Your task to perform on an android device: change notification settings in the gmail app Image 0: 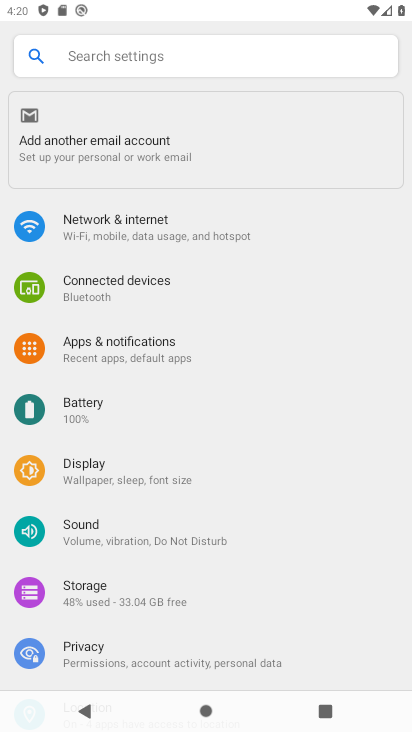
Step 0: press home button
Your task to perform on an android device: change notification settings in the gmail app Image 1: 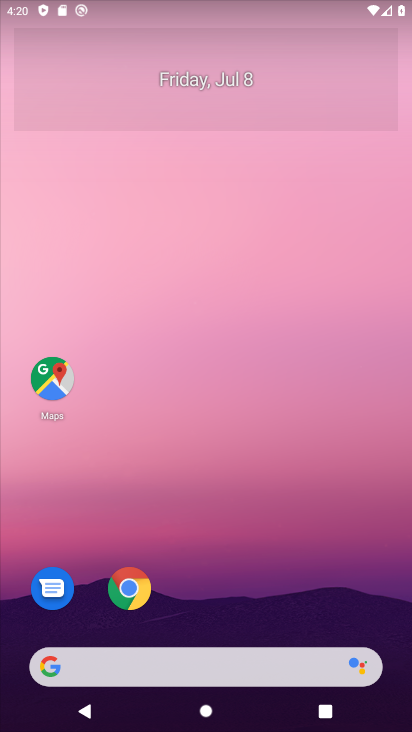
Step 1: drag from (241, 573) to (237, 257)
Your task to perform on an android device: change notification settings in the gmail app Image 2: 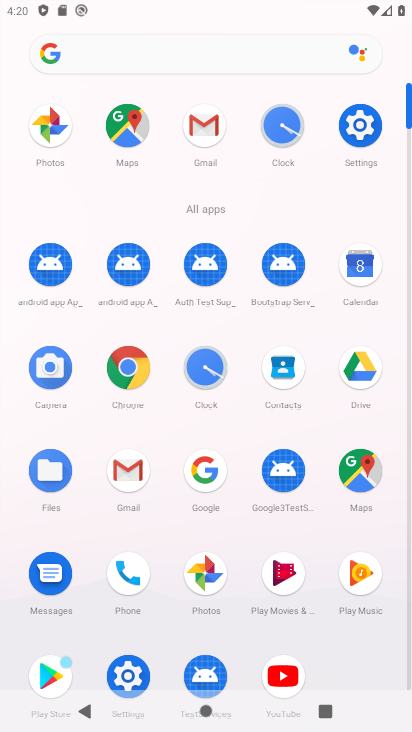
Step 2: click (202, 130)
Your task to perform on an android device: change notification settings in the gmail app Image 3: 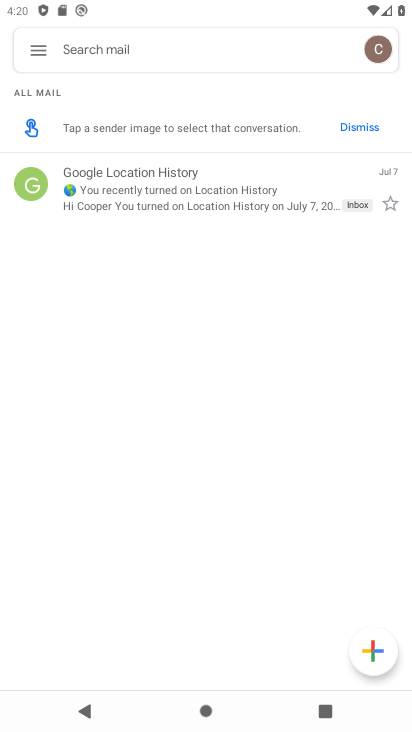
Step 3: click (34, 50)
Your task to perform on an android device: change notification settings in the gmail app Image 4: 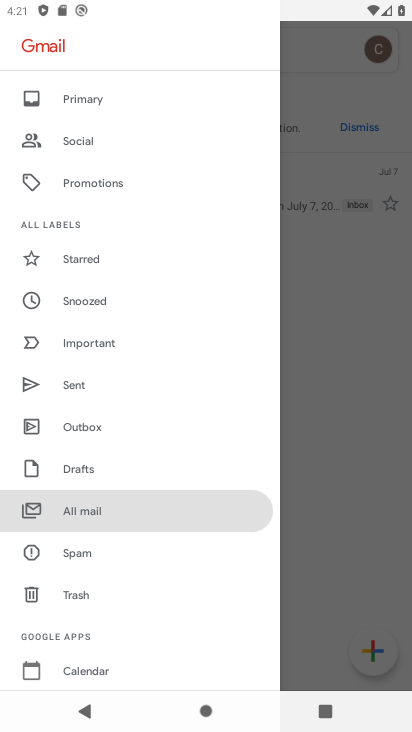
Step 4: drag from (176, 335) to (189, 6)
Your task to perform on an android device: change notification settings in the gmail app Image 5: 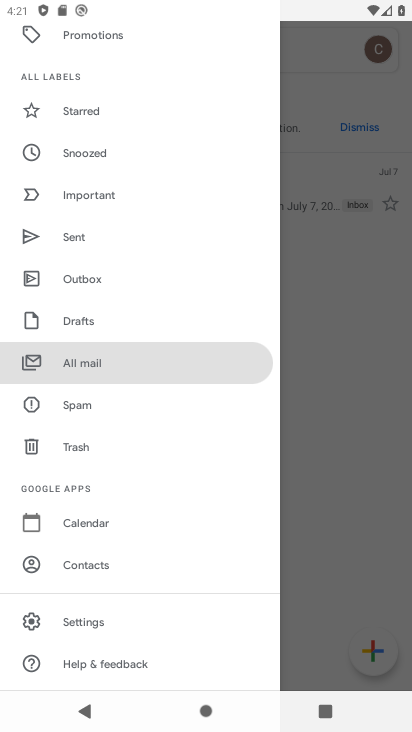
Step 5: click (106, 619)
Your task to perform on an android device: change notification settings in the gmail app Image 6: 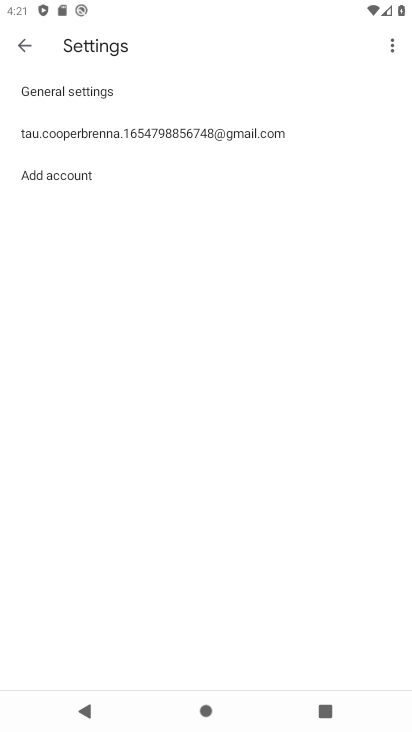
Step 6: click (74, 82)
Your task to perform on an android device: change notification settings in the gmail app Image 7: 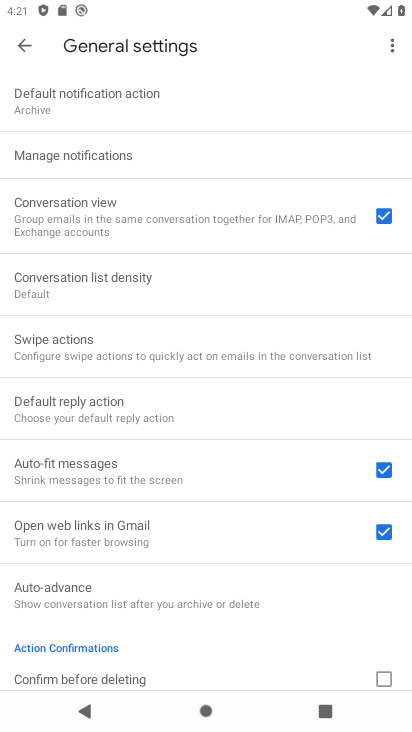
Step 7: drag from (188, 351) to (237, 175)
Your task to perform on an android device: change notification settings in the gmail app Image 8: 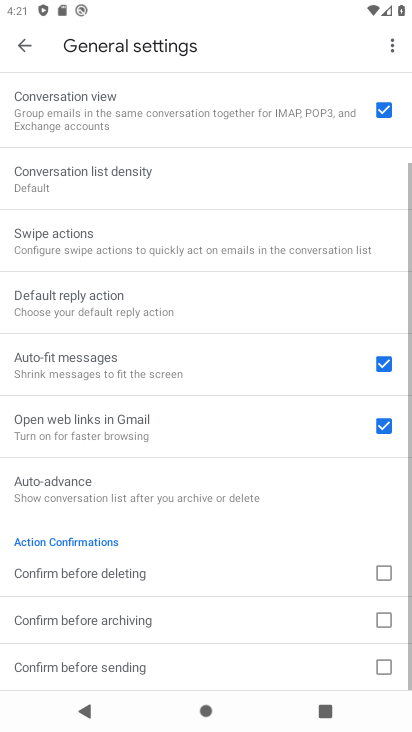
Step 8: drag from (203, 480) to (218, 320)
Your task to perform on an android device: change notification settings in the gmail app Image 9: 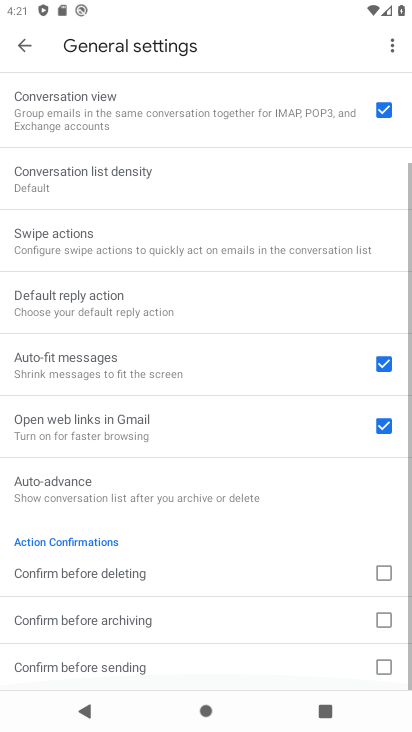
Step 9: drag from (241, 263) to (257, 630)
Your task to perform on an android device: change notification settings in the gmail app Image 10: 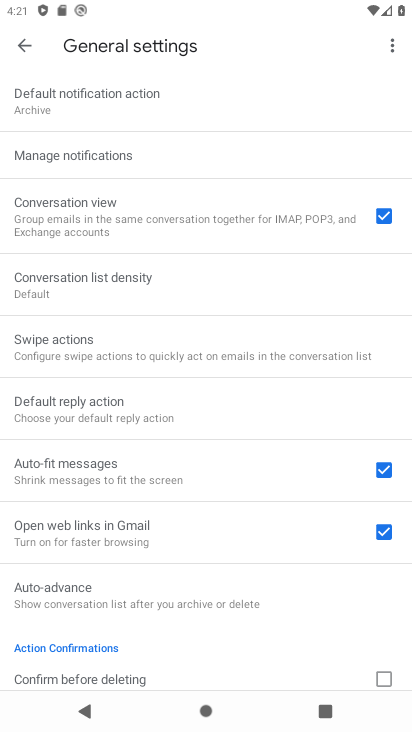
Step 10: click (151, 151)
Your task to perform on an android device: change notification settings in the gmail app Image 11: 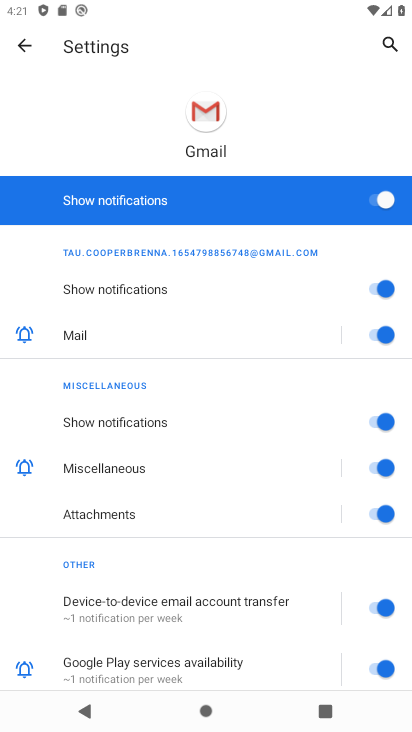
Step 11: drag from (196, 542) to (254, 141)
Your task to perform on an android device: change notification settings in the gmail app Image 12: 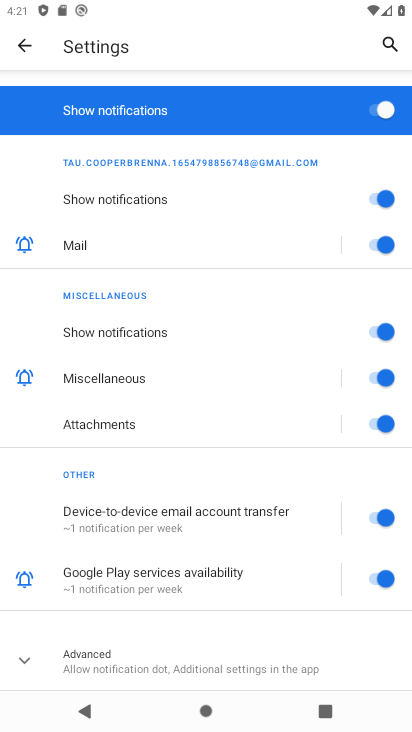
Step 12: drag from (213, 330) to (178, 653)
Your task to perform on an android device: change notification settings in the gmail app Image 13: 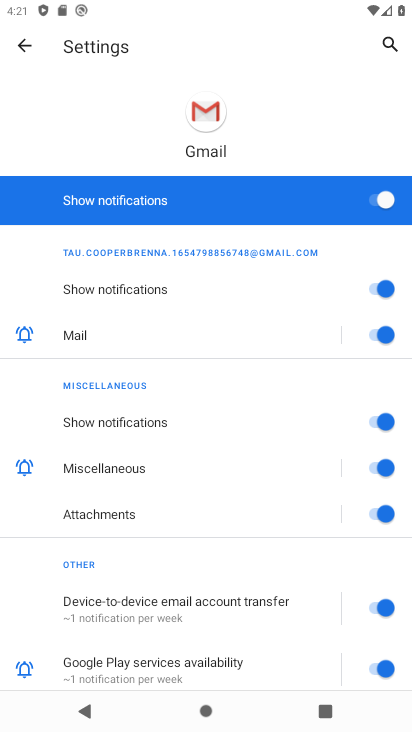
Step 13: click (29, 48)
Your task to perform on an android device: change notification settings in the gmail app Image 14: 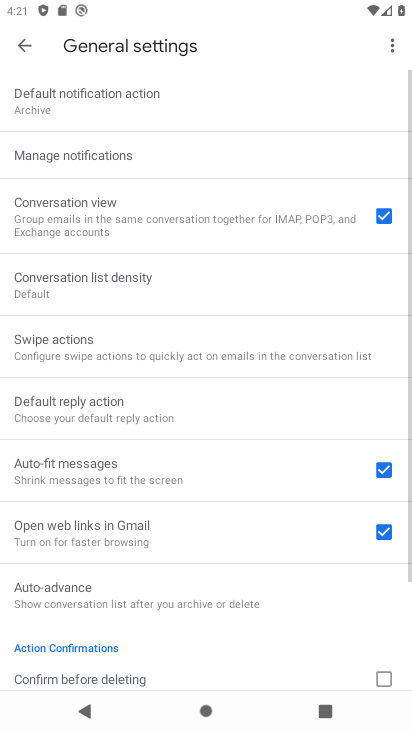
Step 14: click (157, 93)
Your task to perform on an android device: change notification settings in the gmail app Image 15: 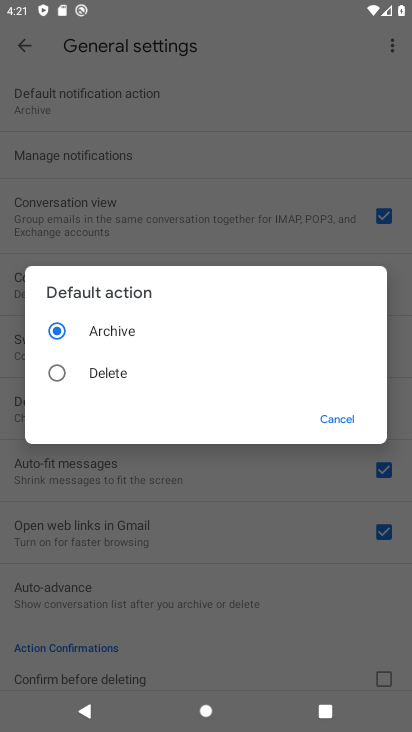
Step 15: click (340, 408)
Your task to perform on an android device: change notification settings in the gmail app Image 16: 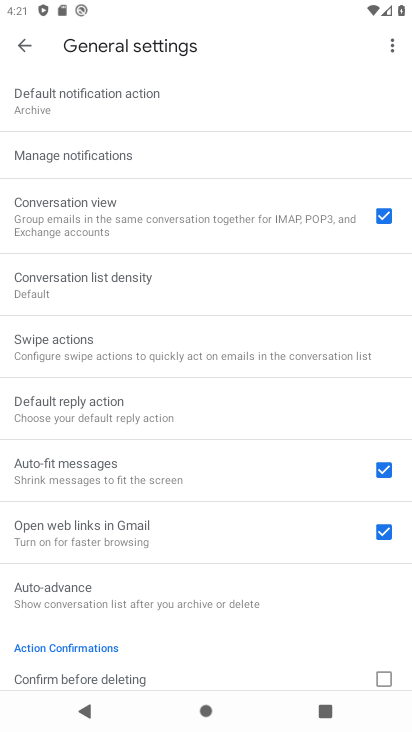
Step 16: click (343, 414)
Your task to perform on an android device: change notification settings in the gmail app Image 17: 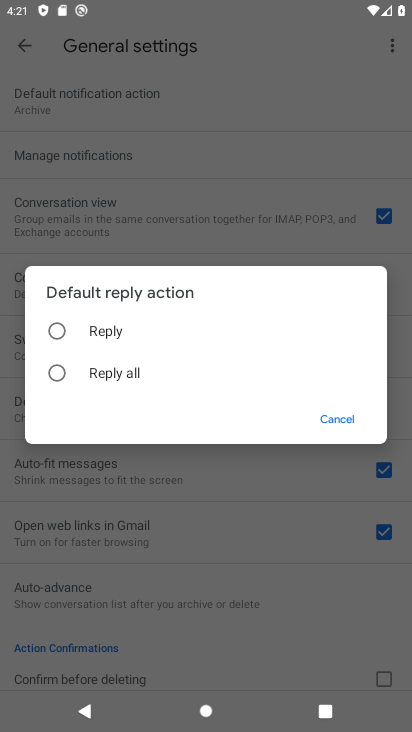
Step 17: click (344, 422)
Your task to perform on an android device: change notification settings in the gmail app Image 18: 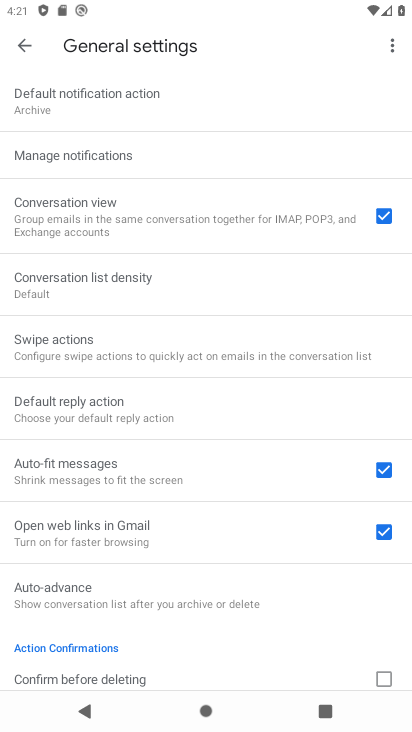
Step 18: task complete